Your task to perform on an android device: Open Google Chrome and open the bookmarks view Image 0: 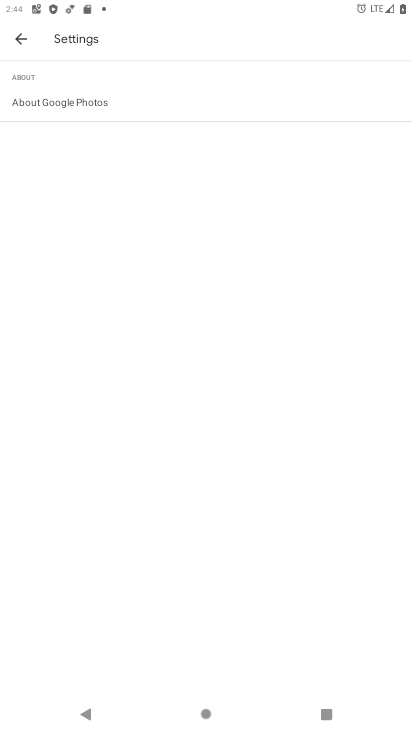
Step 0: press home button
Your task to perform on an android device: Open Google Chrome and open the bookmarks view Image 1: 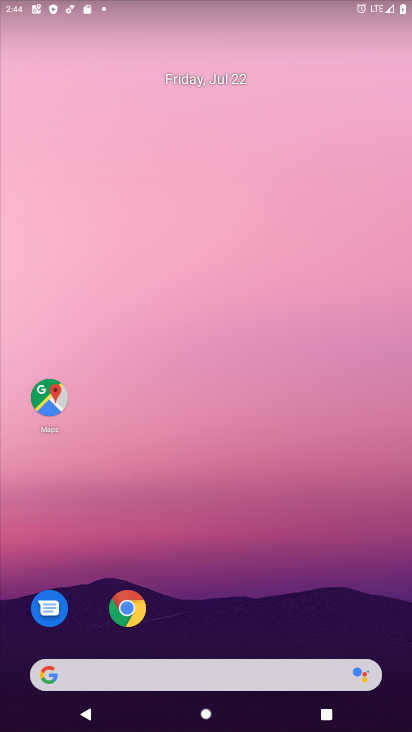
Step 1: click (122, 606)
Your task to perform on an android device: Open Google Chrome and open the bookmarks view Image 2: 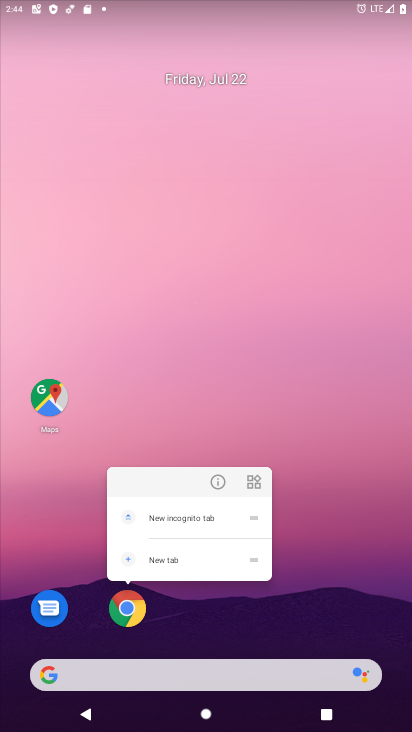
Step 2: click (122, 606)
Your task to perform on an android device: Open Google Chrome and open the bookmarks view Image 3: 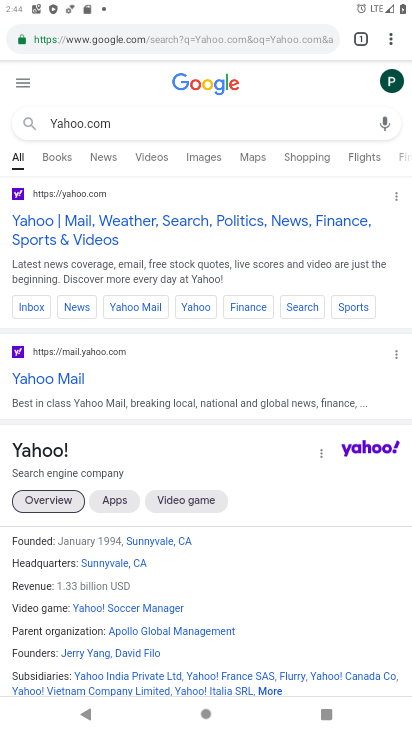
Step 3: click (310, 35)
Your task to perform on an android device: Open Google Chrome and open the bookmarks view Image 4: 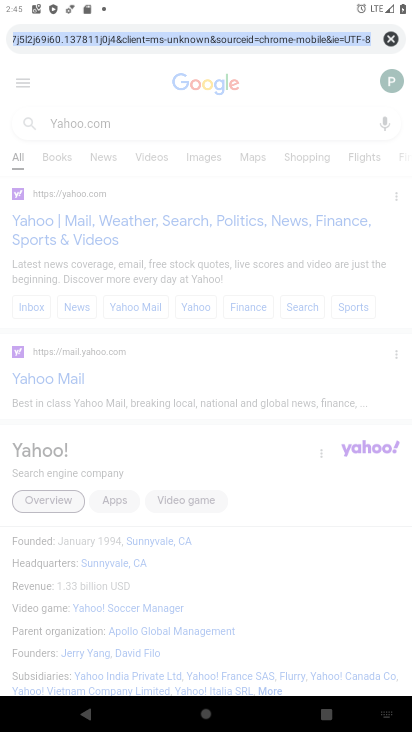
Step 4: click (388, 34)
Your task to perform on an android device: Open Google Chrome and open the bookmarks view Image 5: 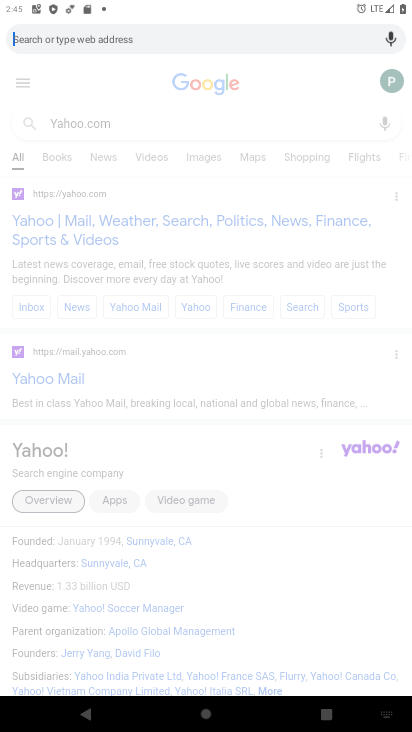
Step 5: press back button
Your task to perform on an android device: Open Google Chrome and open the bookmarks view Image 6: 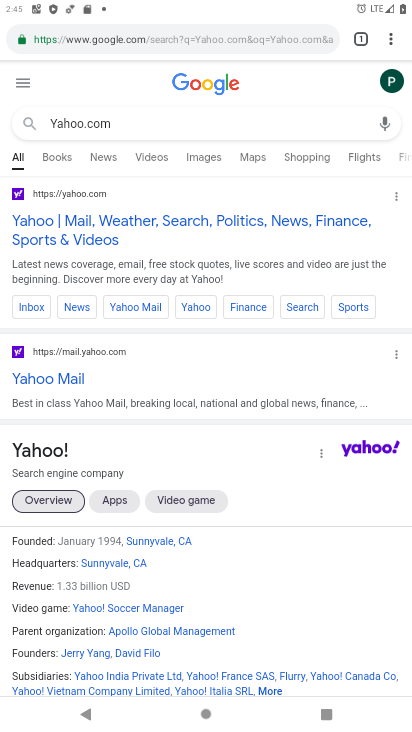
Step 6: click (386, 36)
Your task to perform on an android device: Open Google Chrome and open the bookmarks view Image 7: 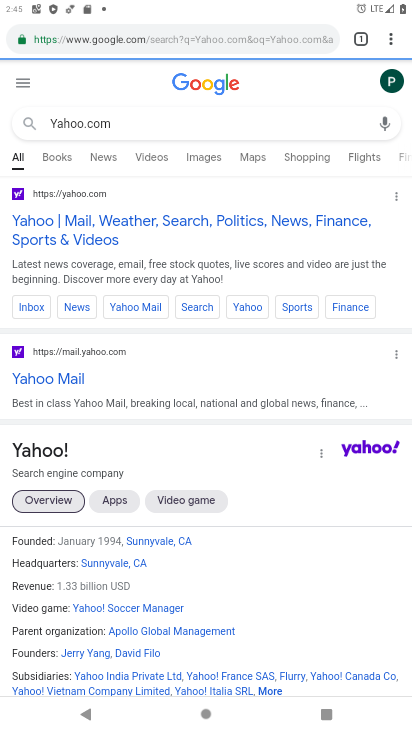
Step 7: click (389, 38)
Your task to perform on an android device: Open Google Chrome and open the bookmarks view Image 8: 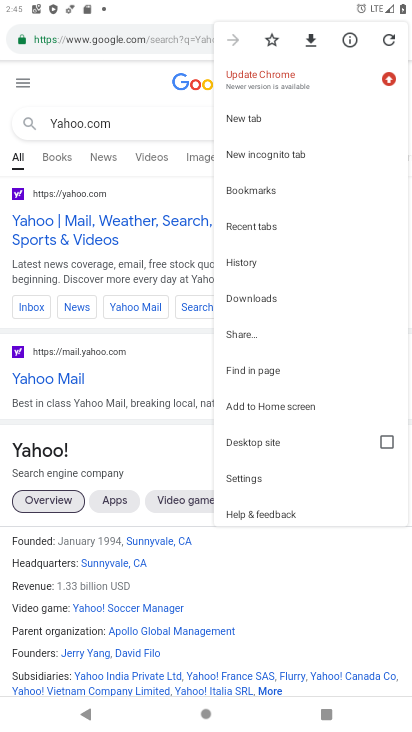
Step 8: click (238, 472)
Your task to perform on an android device: Open Google Chrome and open the bookmarks view Image 9: 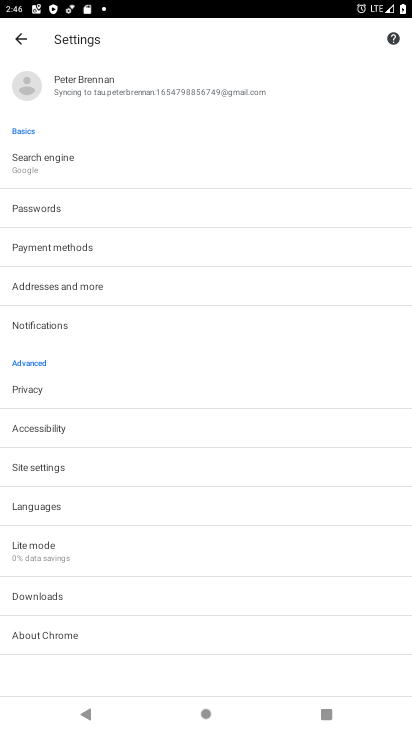
Step 9: click (63, 464)
Your task to perform on an android device: Open Google Chrome and open the bookmarks view Image 10: 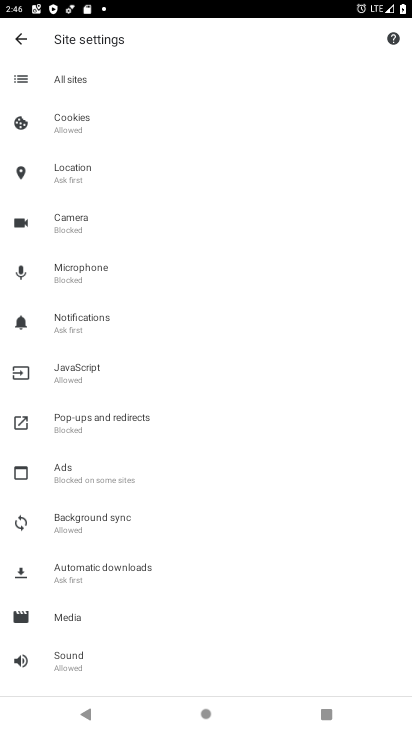
Step 10: press home button
Your task to perform on an android device: Open Google Chrome and open the bookmarks view Image 11: 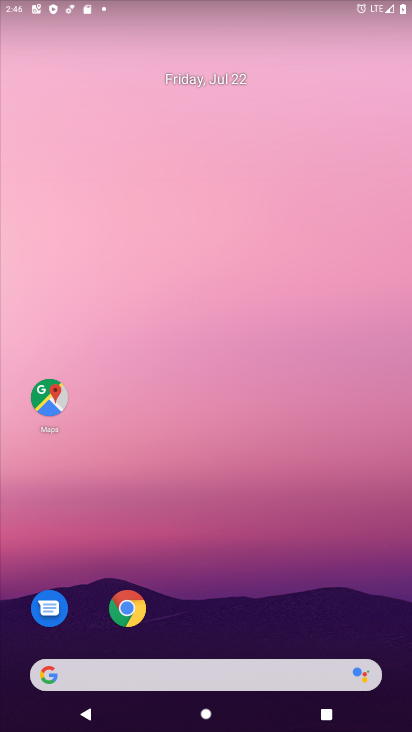
Step 11: click (124, 611)
Your task to perform on an android device: Open Google Chrome and open the bookmarks view Image 12: 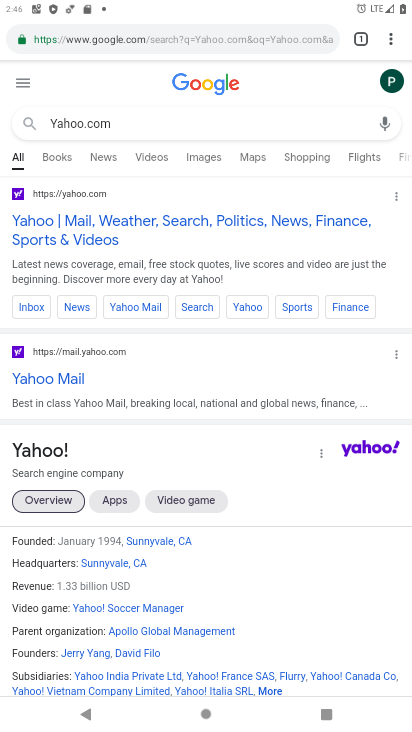
Step 12: click (389, 32)
Your task to perform on an android device: Open Google Chrome and open the bookmarks view Image 13: 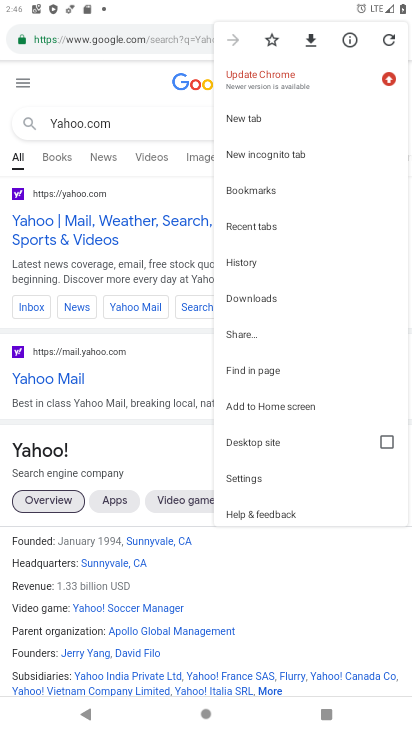
Step 13: click (242, 187)
Your task to perform on an android device: Open Google Chrome and open the bookmarks view Image 14: 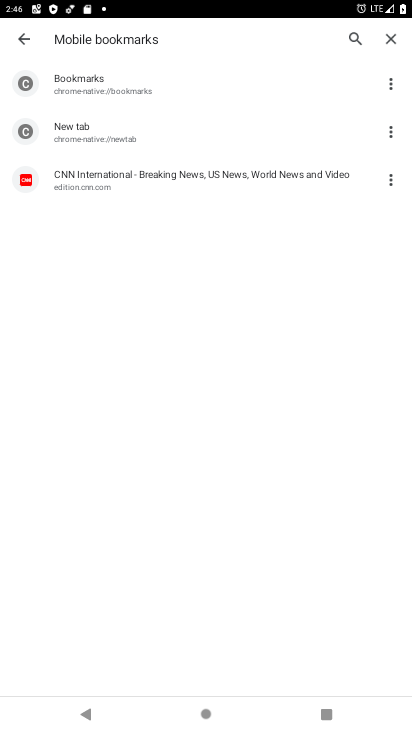
Step 14: task complete